Your task to perform on an android device: Open sound settings Image 0: 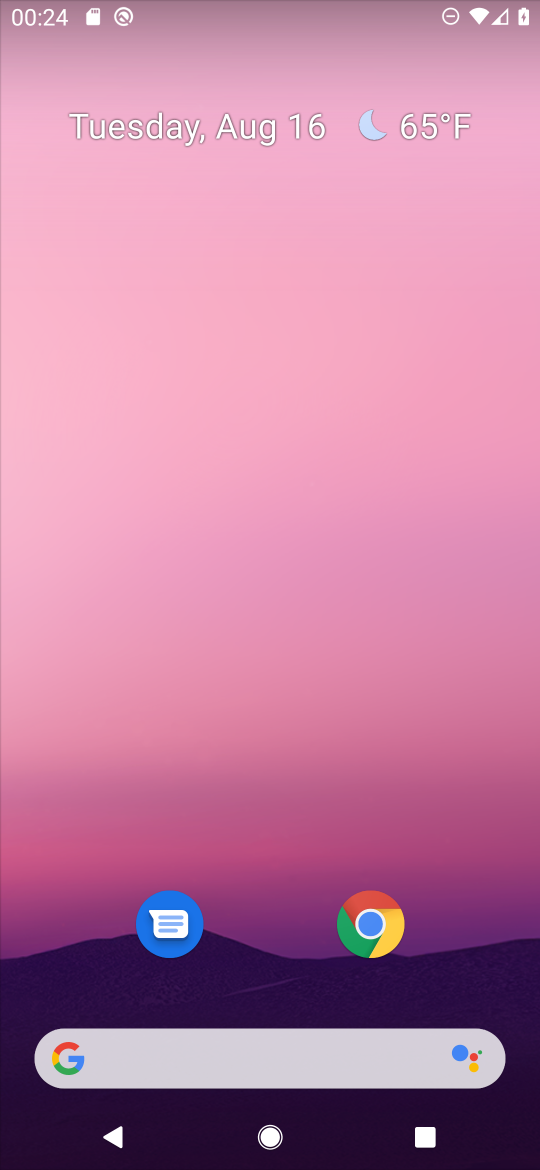
Step 0: drag from (451, 898) to (325, 77)
Your task to perform on an android device: Open sound settings Image 1: 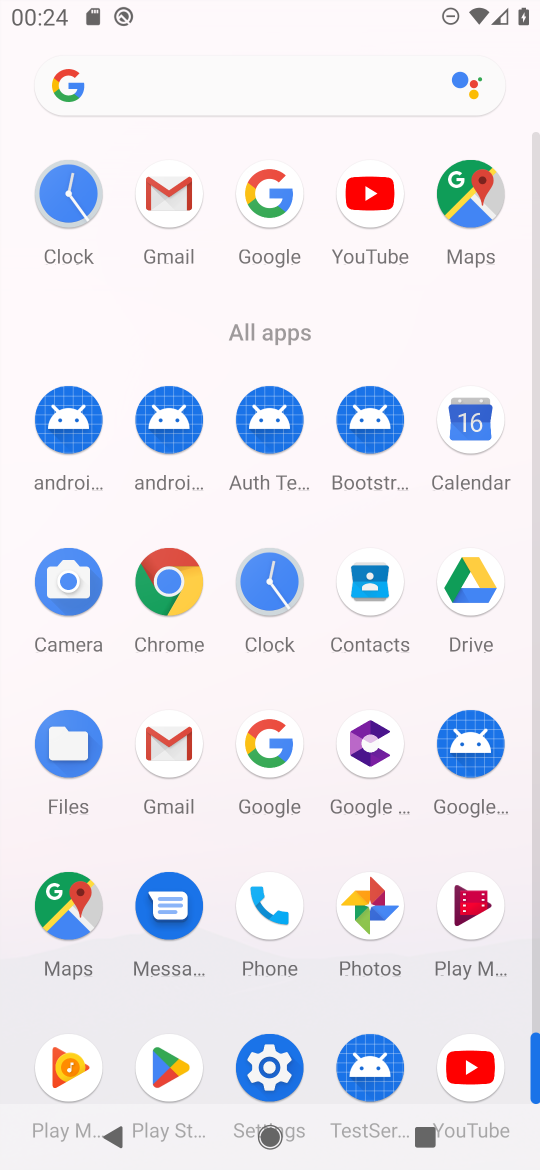
Step 1: click (279, 1055)
Your task to perform on an android device: Open sound settings Image 2: 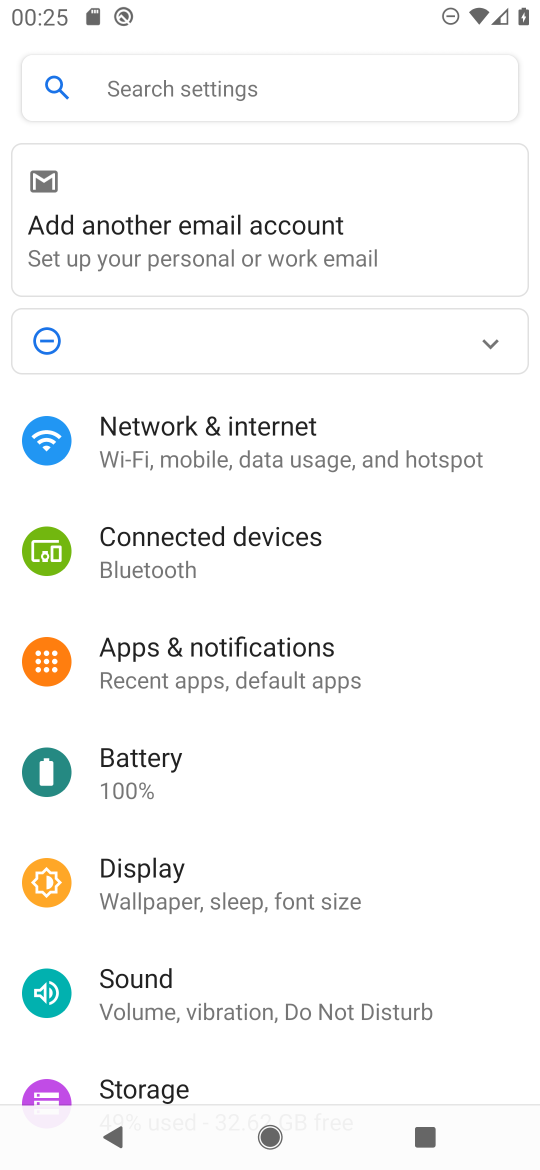
Step 2: click (206, 1009)
Your task to perform on an android device: Open sound settings Image 3: 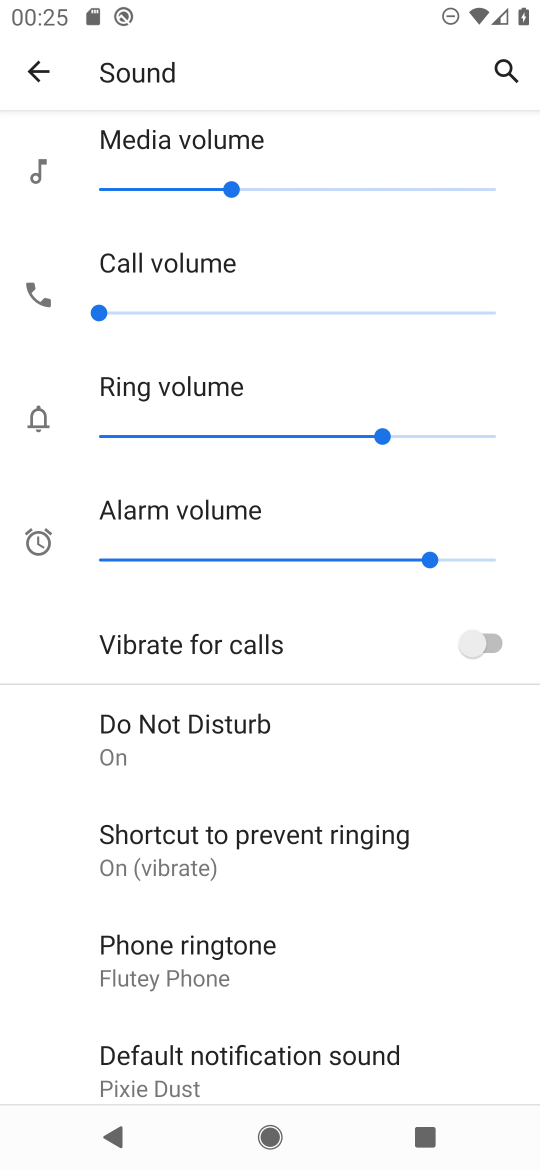
Step 3: task complete